Your task to perform on an android device: set the stopwatch Image 0: 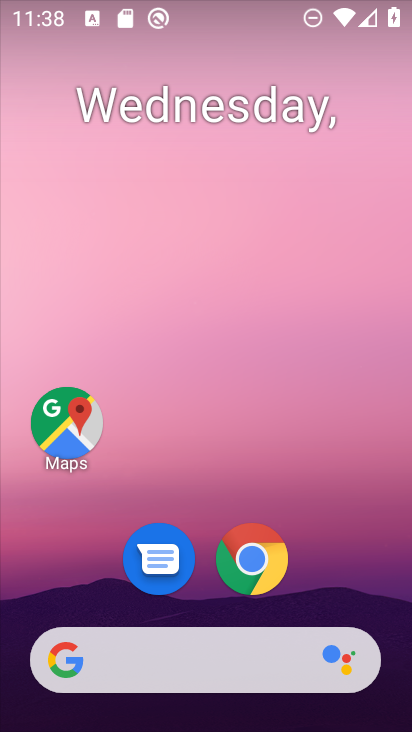
Step 0: drag from (244, 602) to (306, 103)
Your task to perform on an android device: set the stopwatch Image 1: 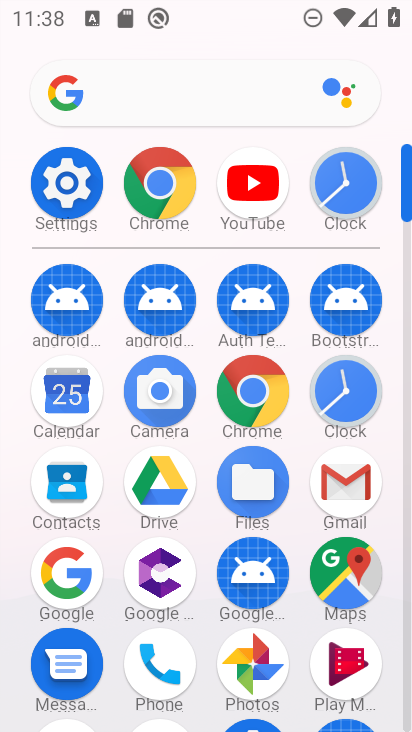
Step 1: click (352, 398)
Your task to perform on an android device: set the stopwatch Image 2: 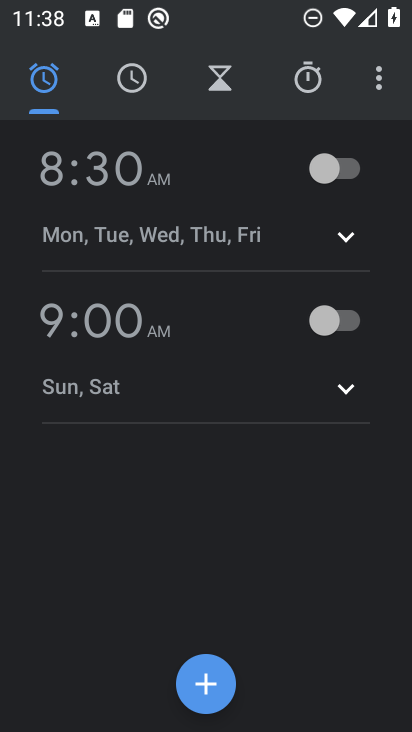
Step 2: click (296, 90)
Your task to perform on an android device: set the stopwatch Image 3: 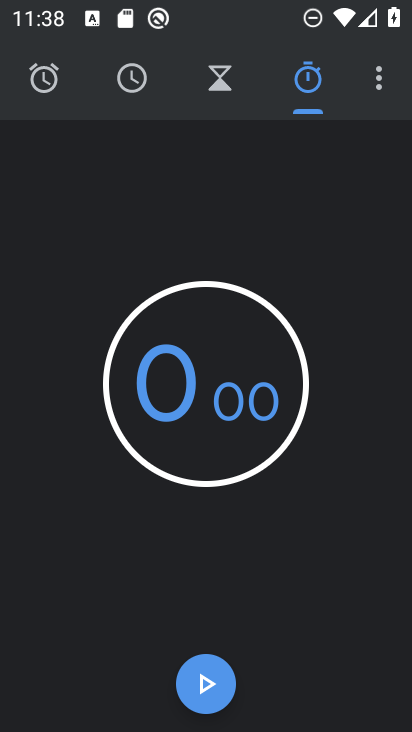
Step 3: click (205, 683)
Your task to perform on an android device: set the stopwatch Image 4: 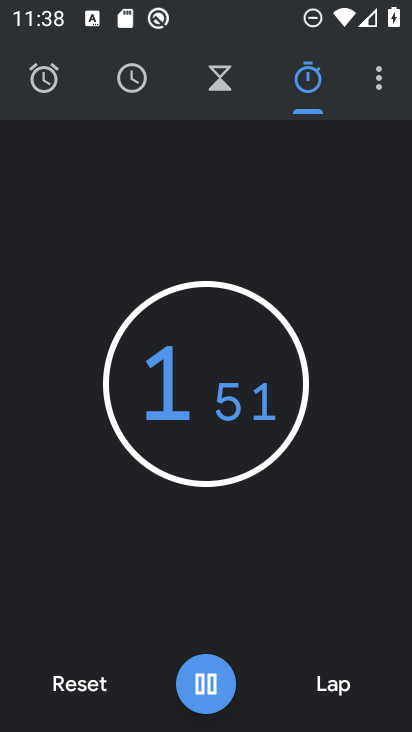
Step 4: task complete